Your task to perform on an android device: Open Android settings Image 0: 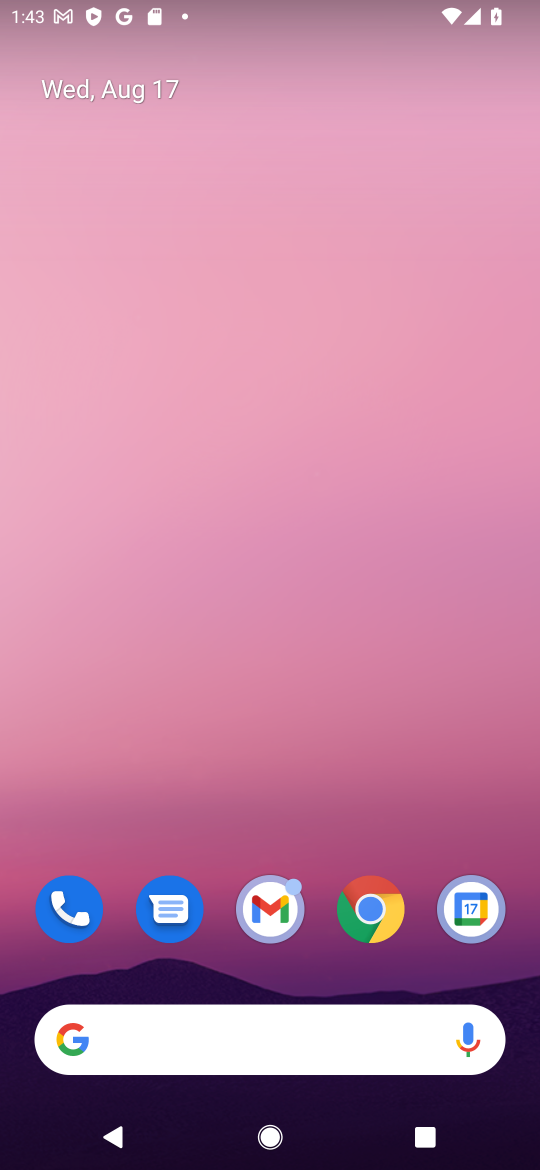
Step 0: drag from (250, 818) to (327, 17)
Your task to perform on an android device: Open Android settings Image 1: 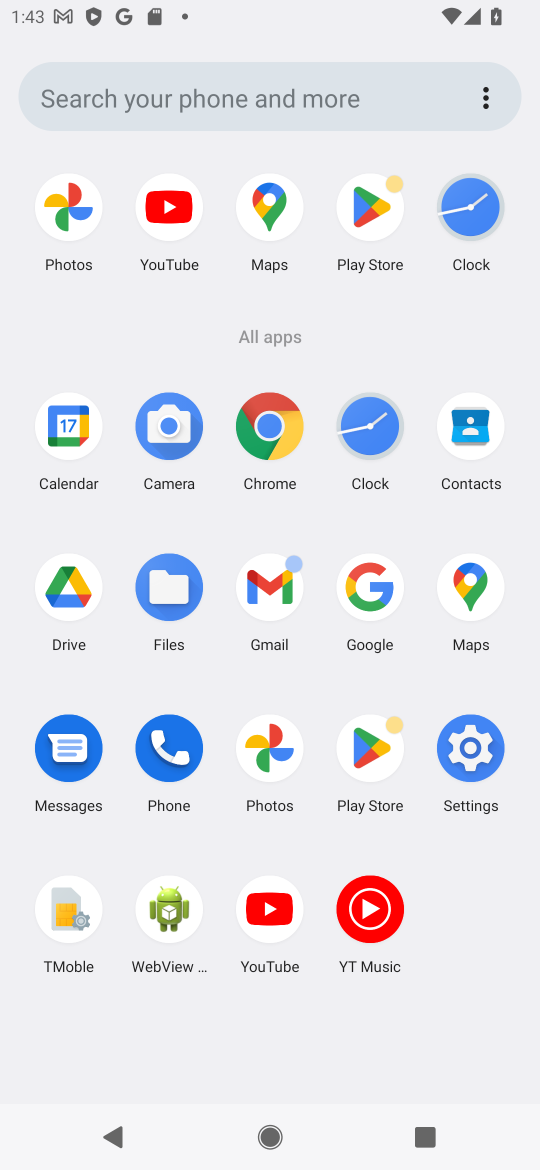
Step 1: click (464, 751)
Your task to perform on an android device: Open Android settings Image 2: 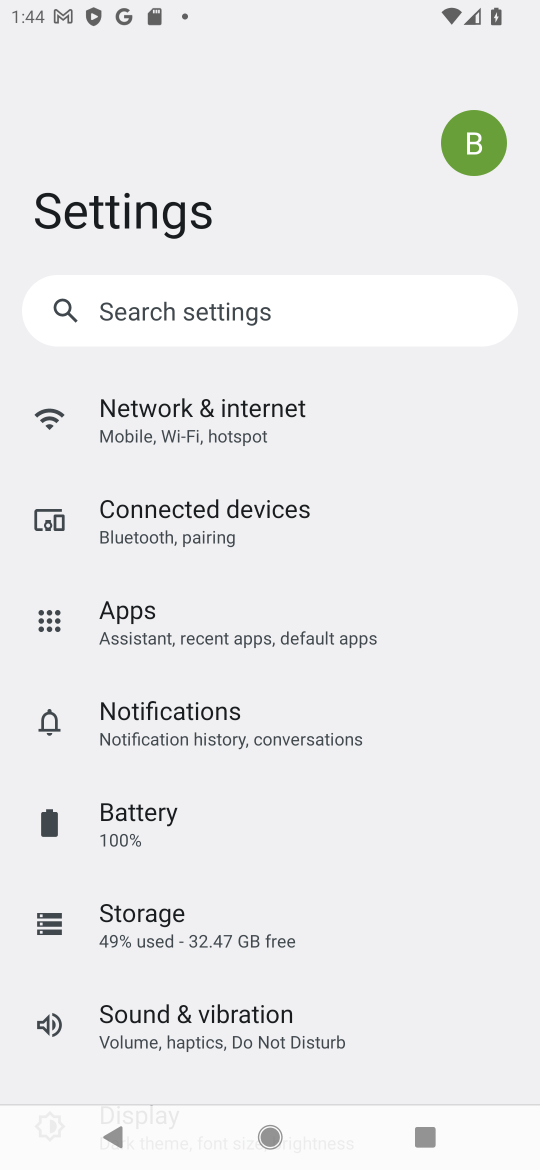
Step 2: task complete